Your task to perform on an android device: make emails show in primary in the gmail app Image 0: 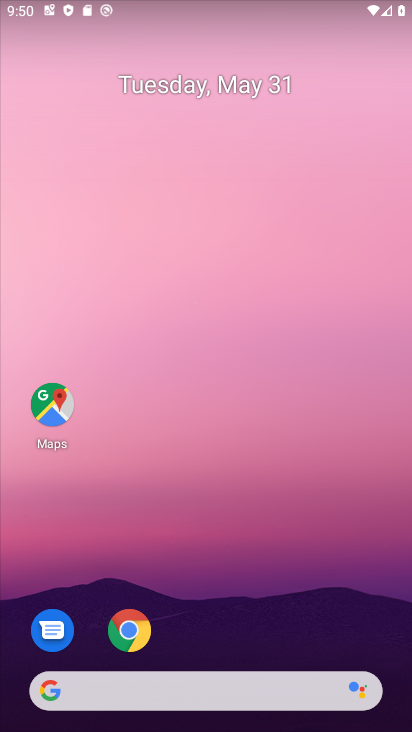
Step 0: drag from (220, 718) to (224, 271)
Your task to perform on an android device: make emails show in primary in the gmail app Image 1: 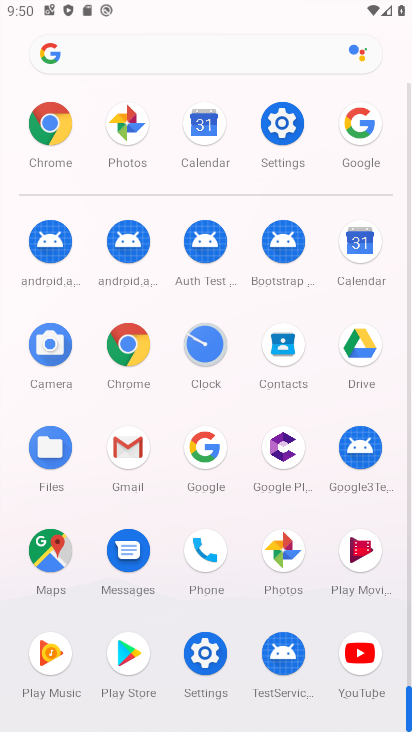
Step 1: click (137, 458)
Your task to perform on an android device: make emails show in primary in the gmail app Image 2: 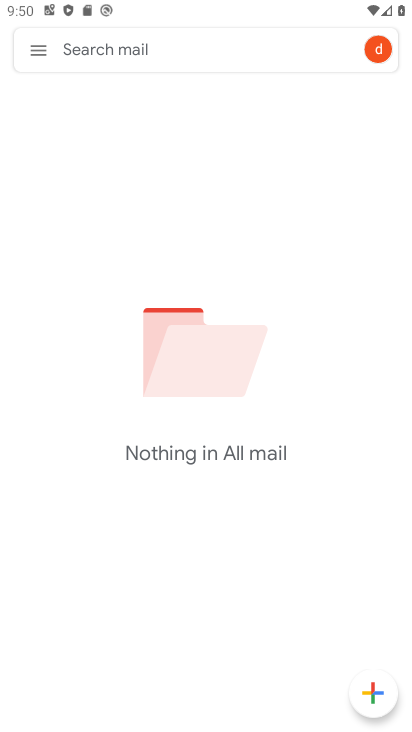
Step 2: task complete